Your task to perform on an android device: Search for sushi restaurants on Maps Image 0: 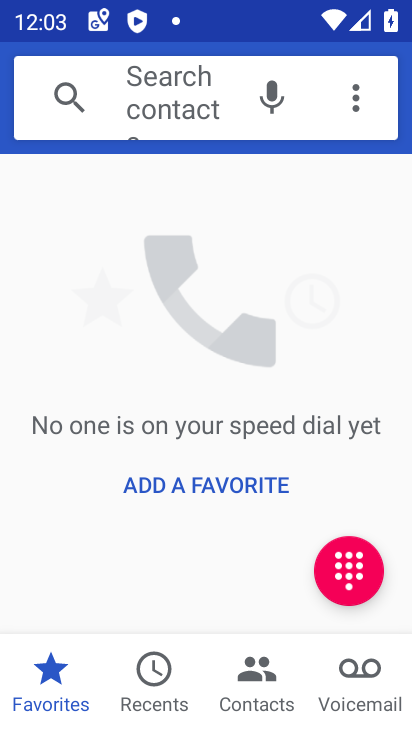
Step 0: press home button
Your task to perform on an android device: Search for sushi restaurants on Maps Image 1: 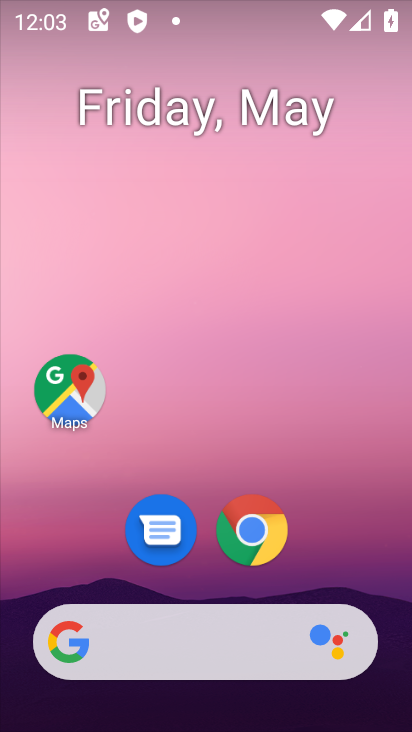
Step 1: click (66, 395)
Your task to perform on an android device: Search for sushi restaurants on Maps Image 2: 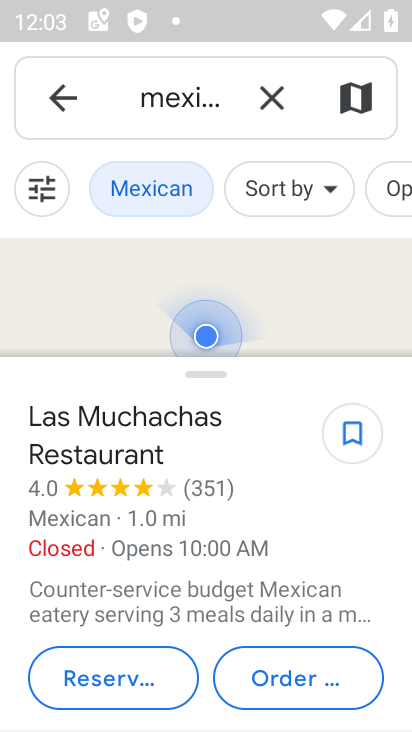
Step 2: click (272, 99)
Your task to perform on an android device: Search for sushi restaurants on Maps Image 3: 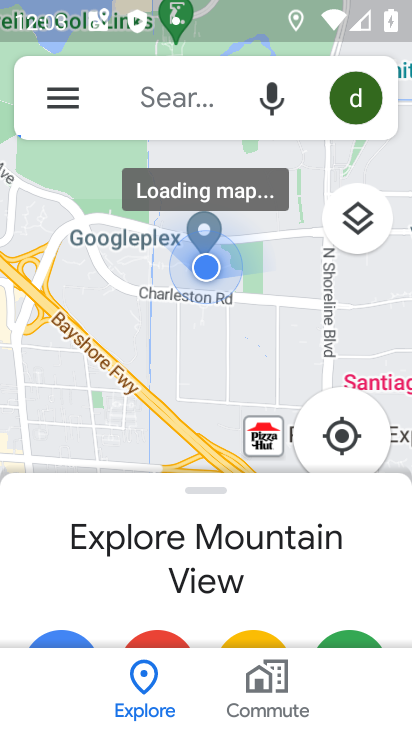
Step 3: click (188, 103)
Your task to perform on an android device: Search for sushi restaurants on Maps Image 4: 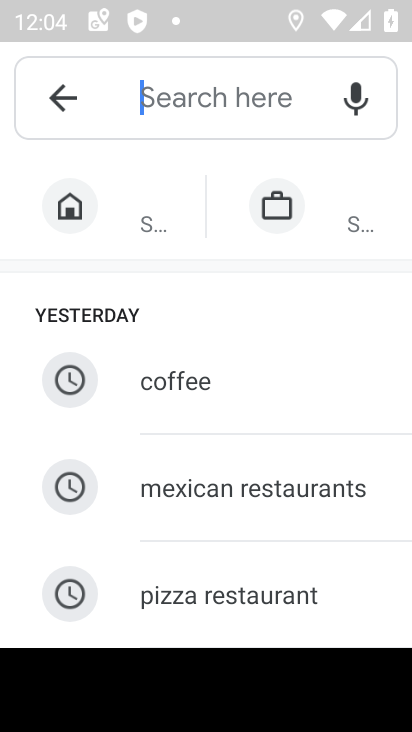
Step 4: type "sushi restaurants"
Your task to perform on an android device: Search for sushi restaurants on Maps Image 5: 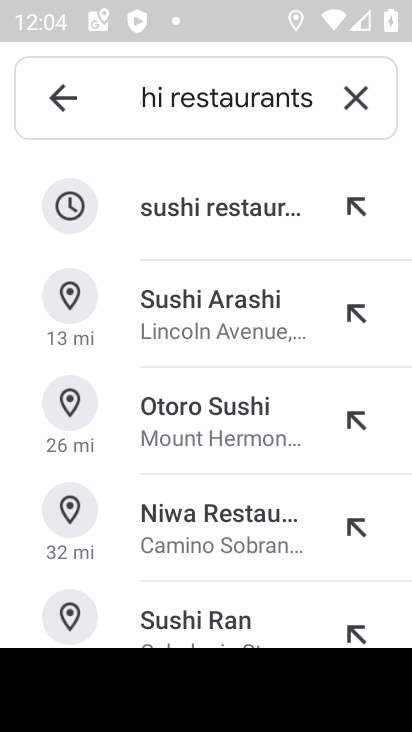
Step 5: click (246, 214)
Your task to perform on an android device: Search for sushi restaurants on Maps Image 6: 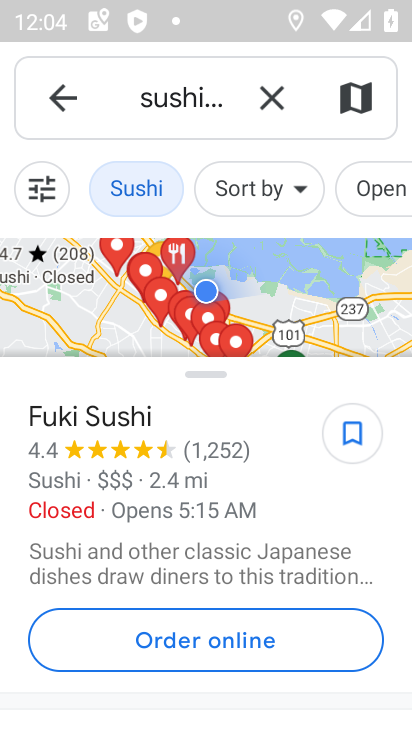
Step 6: task complete